Your task to perform on an android device: toggle priority inbox in the gmail app Image 0: 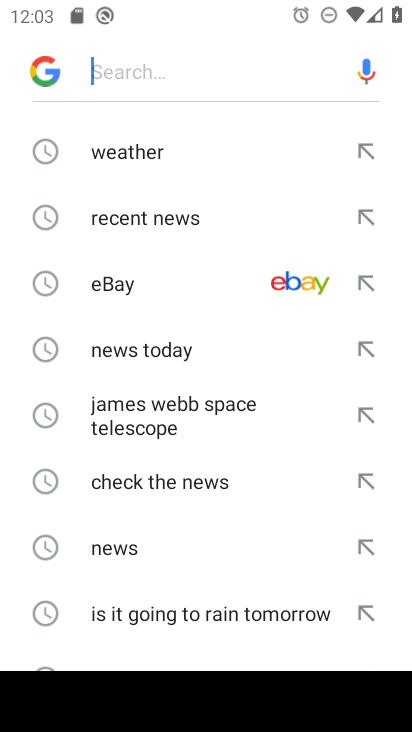
Step 0: press home button
Your task to perform on an android device: toggle priority inbox in the gmail app Image 1: 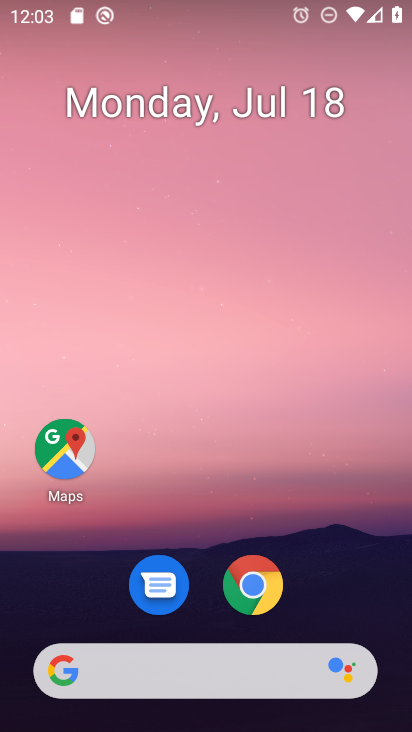
Step 1: drag from (297, 495) to (300, 31)
Your task to perform on an android device: toggle priority inbox in the gmail app Image 2: 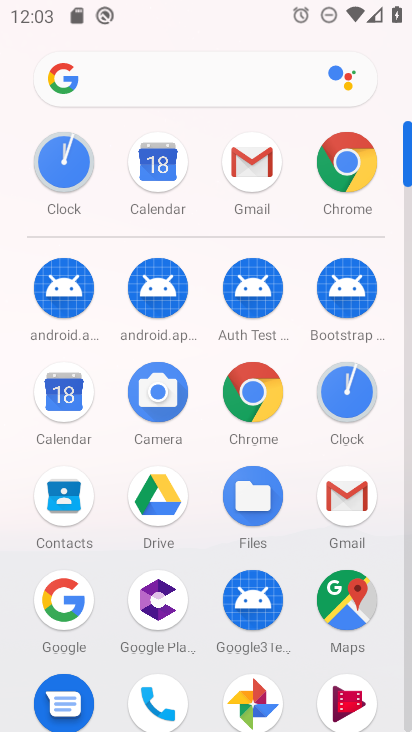
Step 2: click (259, 165)
Your task to perform on an android device: toggle priority inbox in the gmail app Image 3: 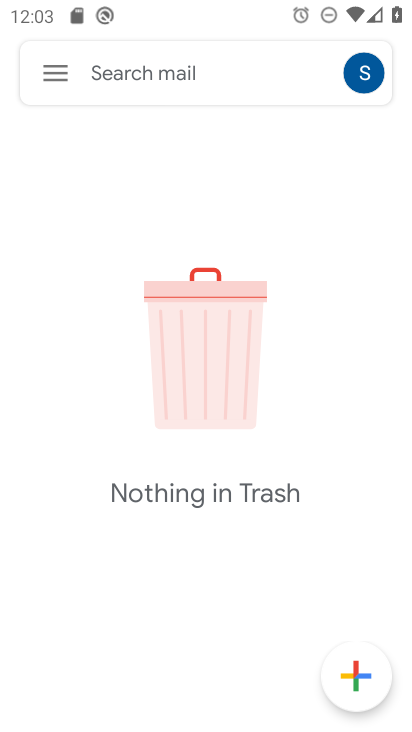
Step 3: click (61, 72)
Your task to perform on an android device: toggle priority inbox in the gmail app Image 4: 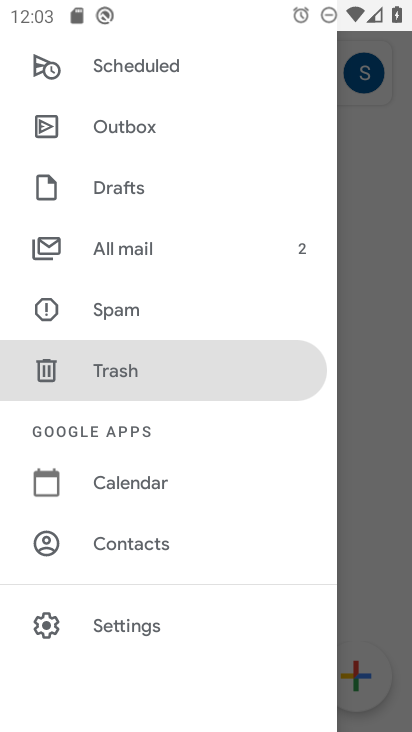
Step 4: click (137, 613)
Your task to perform on an android device: toggle priority inbox in the gmail app Image 5: 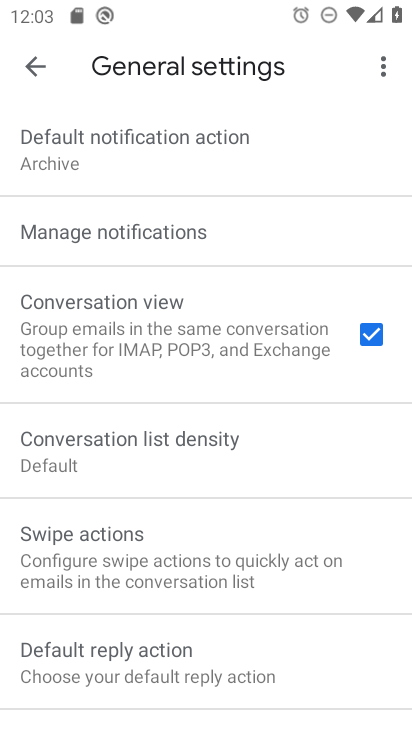
Step 5: click (44, 72)
Your task to perform on an android device: toggle priority inbox in the gmail app Image 6: 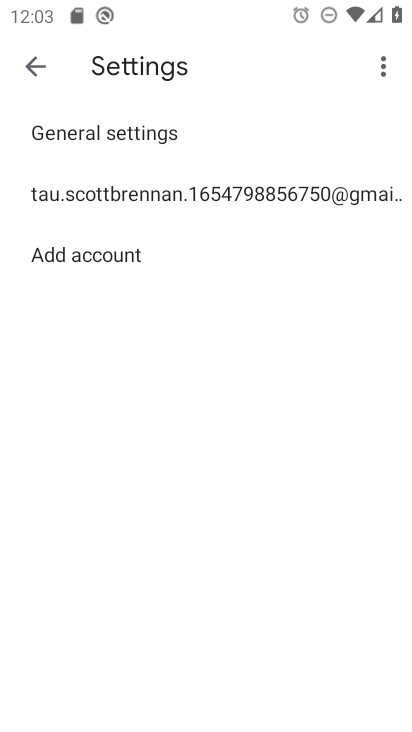
Step 6: click (83, 183)
Your task to perform on an android device: toggle priority inbox in the gmail app Image 7: 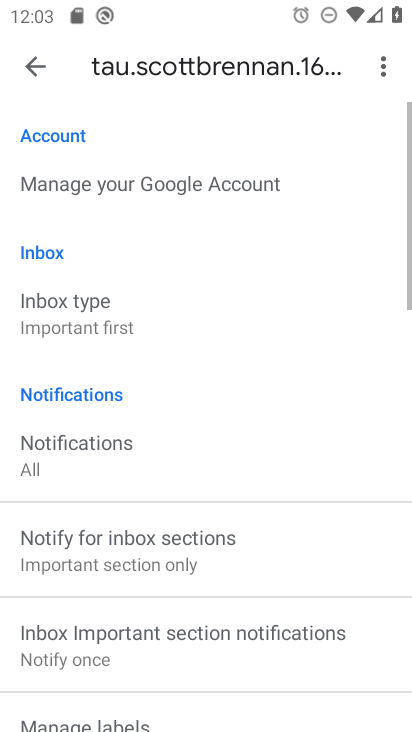
Step 7: click (87, 301)
Your task to perform on an android device: toggle priority inbox in the gmail app Image 8: 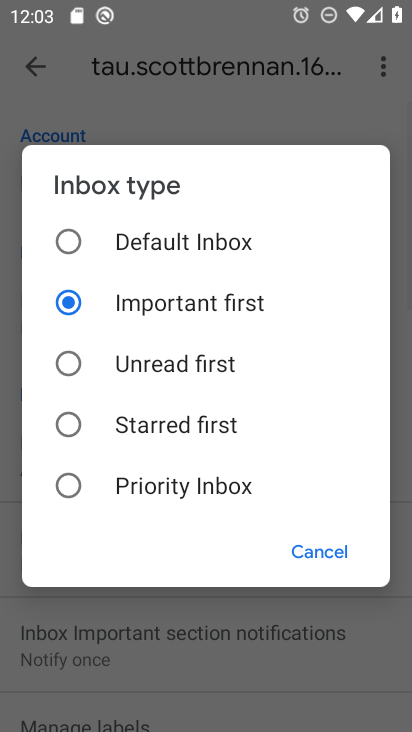
Step 8: click (65, 481)
Your task to perform on an android device: toggle priority inbox in the gmail app Image 9: 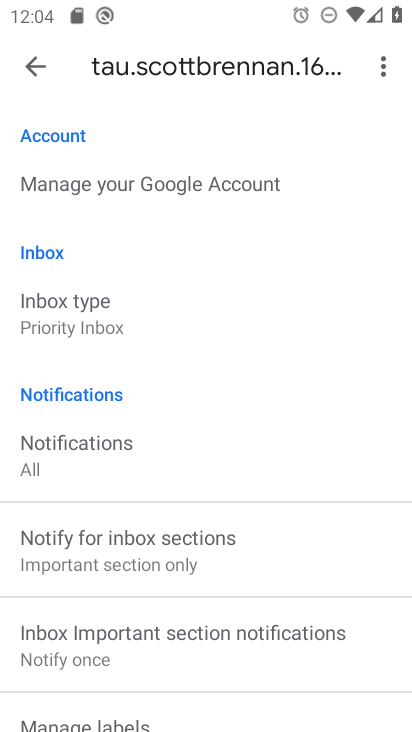
Step 9: task complete